Your task to perform on an android device: read, delete, or share a saved page in the chrome app Image 0: 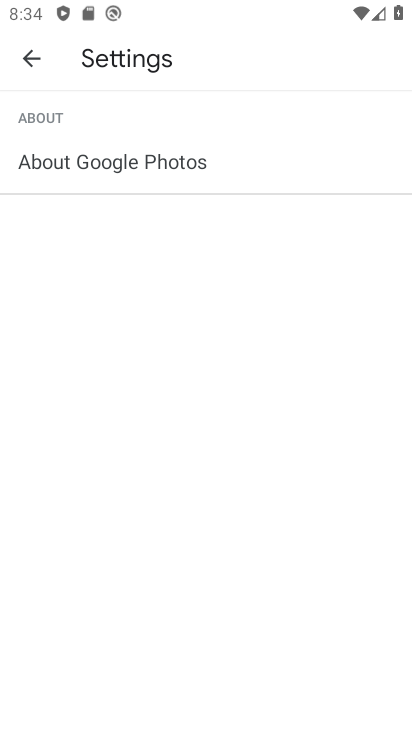
Step 0: press home button
Your task to perform on an android device: read, delete, or share a saved page in the chrome app Image 1: 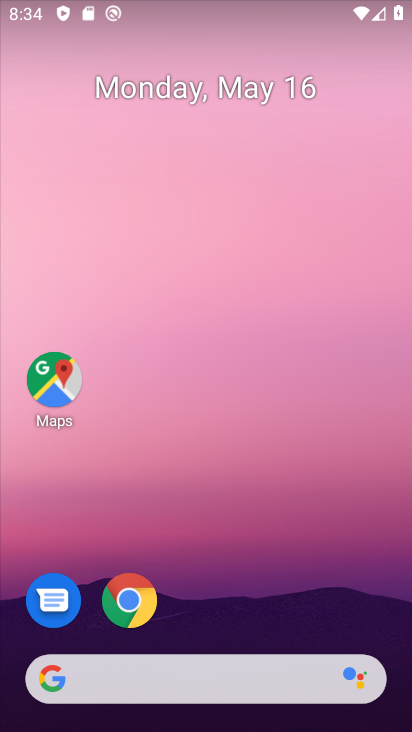
Step 1: click (130, 604)
Your task to perform on an android device: read, delete, or share a saved page in the chrome app Image 2: 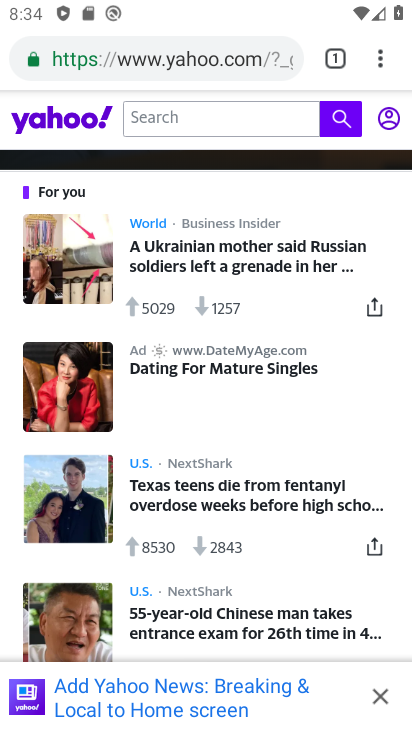
Step 2: click (379, 62)
Your task to perform on an android device: read, delete, or share a saved page in the chrome app Image 3: 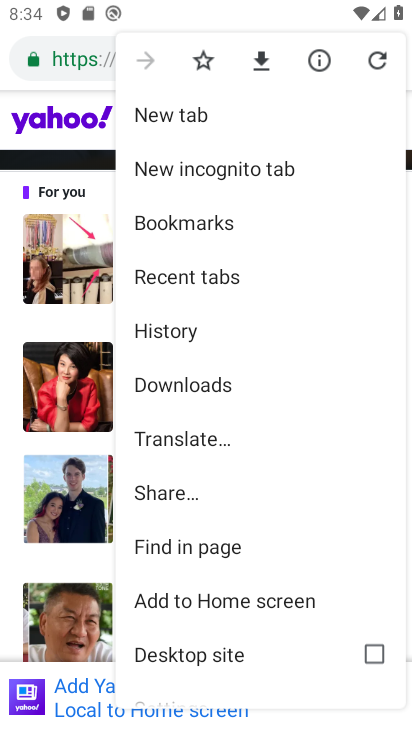
Step 3: click (175, 396)
Your task to perform on an android device: read, delete, or share a saved page in the chrome app Image 4: 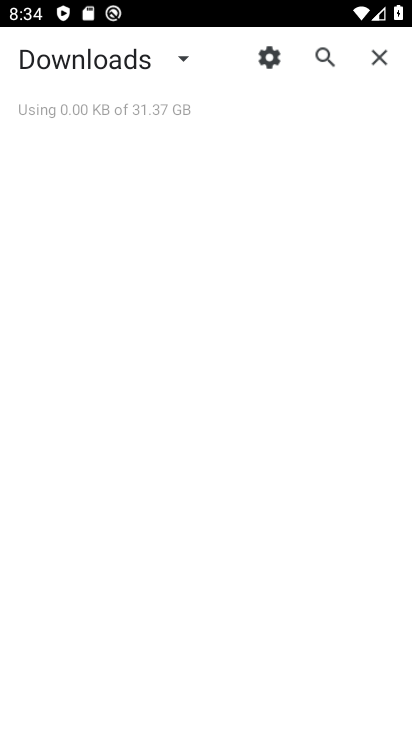
Step 4: click (182, 56)
Your task to perform on an android device: read, delete, or share a saved page in the chrome app Image 5: 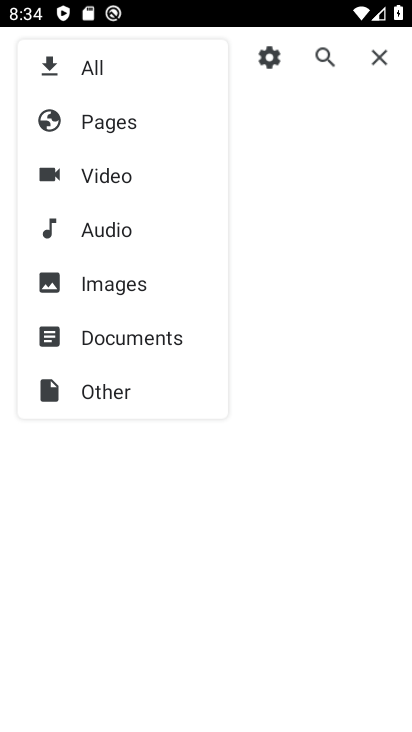
Step 5: click (96, 122)
Your task to perform on an android device: read, delete, or share a saved page in the chrome app Image 6: 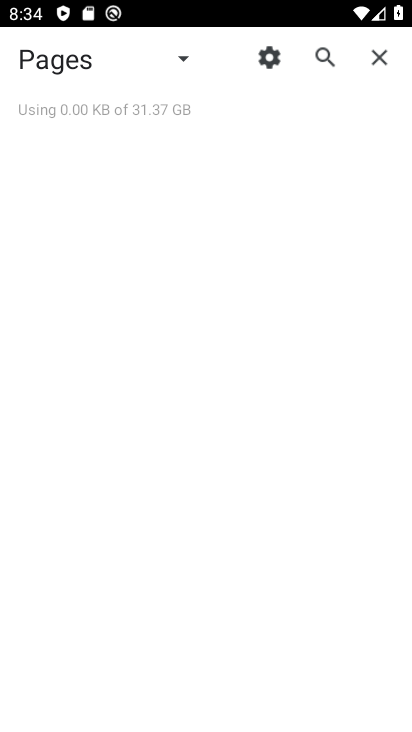
Step 6: task complete